Your task to perform on an android device: Open the Play Movies app and select the watchlist tab. Image 0: 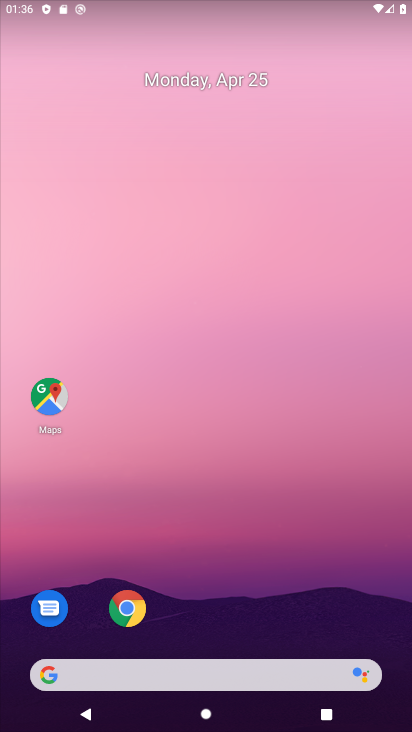
Step 0: drag from (189, 616) to (292, 32)
Your task to perform on an android device: Open the Play Movies app and select the watchlist tab. Image 1: 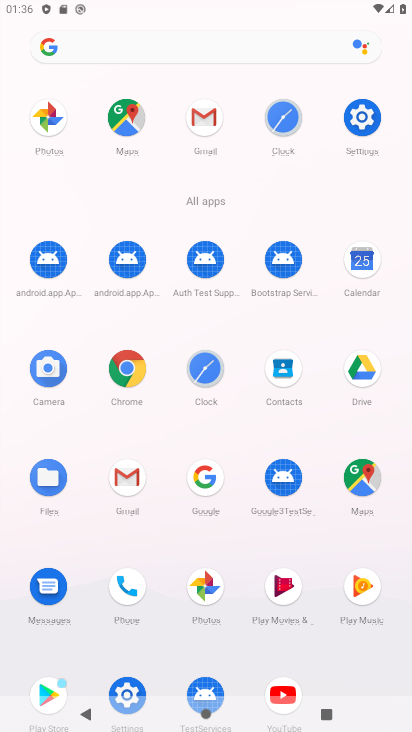
Step 1: click (285, 591)
Your task to perform on an android device: Open the Play Movies app and select the watchlist tab. Image 2: 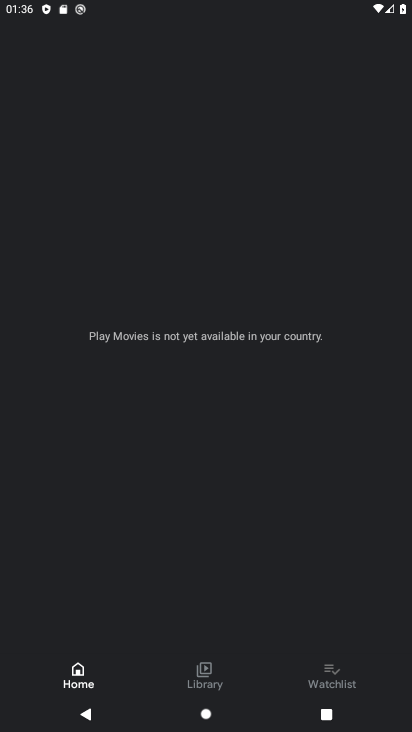
Step 2: click (337, 678)
Your task to perform on an android device: Open the Play Movies app and select the watchlist tab. Image 3: 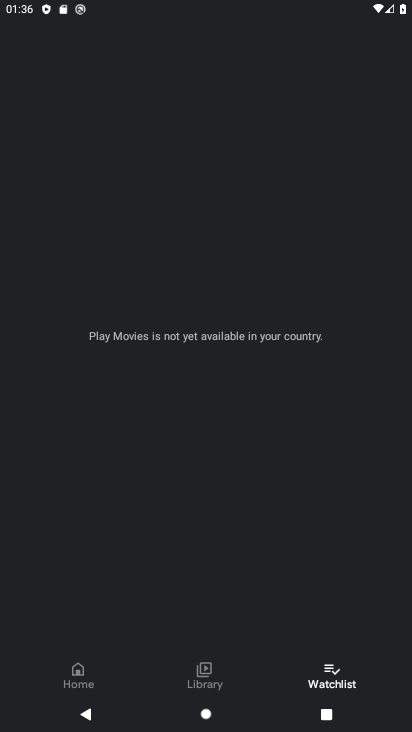
Step 3: task complete